Your task to perform on an android device: Open network settings Image 0: 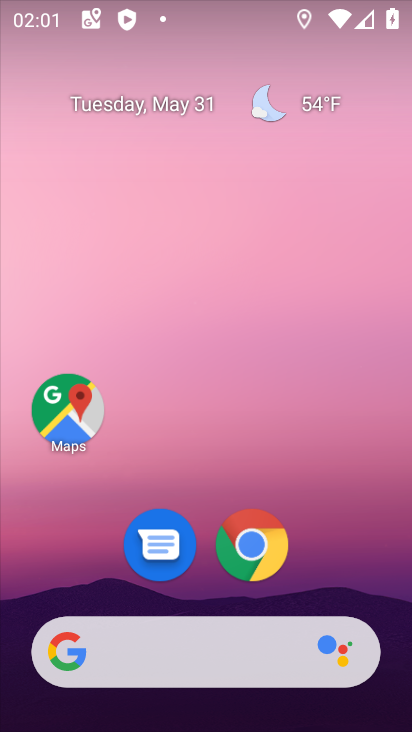
Step 0: drag from (382, 522) to (352, 165)
Your task to perform on an android device: Open network settings Image 1: 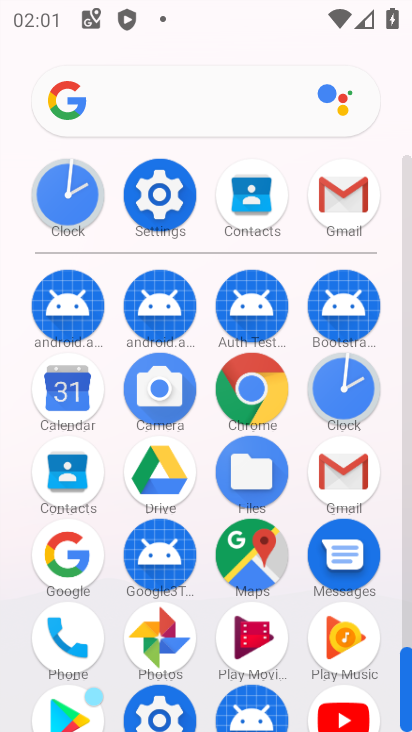
Step 1: click (144, 199)
Your task to perform on an android device: Open network settings Image 2: 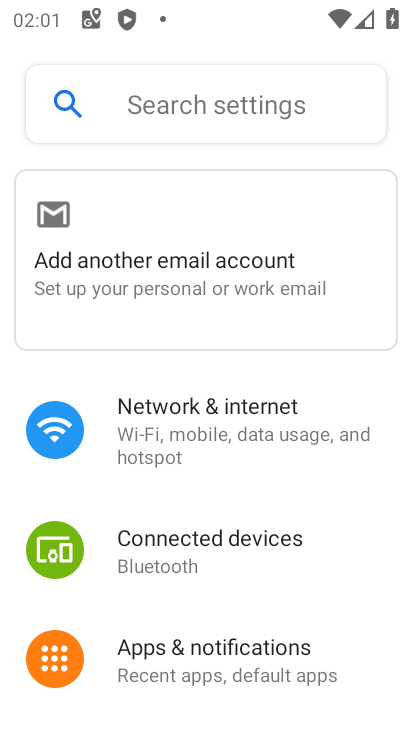
Step 2: click (206, 407)
Your task to perform on an android device: Open network settings Image 3: 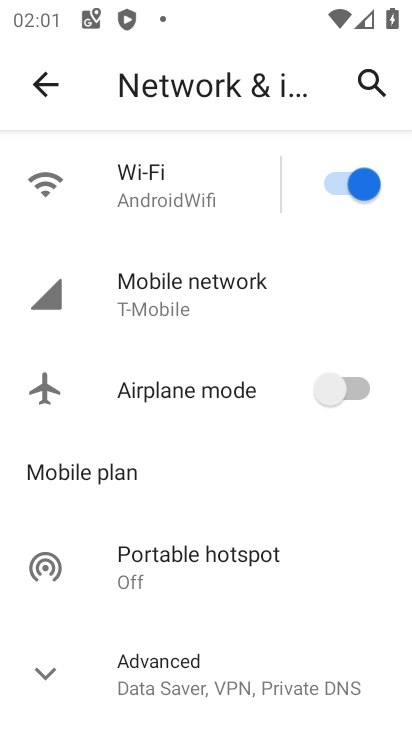
Step 3: task complete